Your task to perform on an android device: Open calendar and show me the second week of next month Image 0: 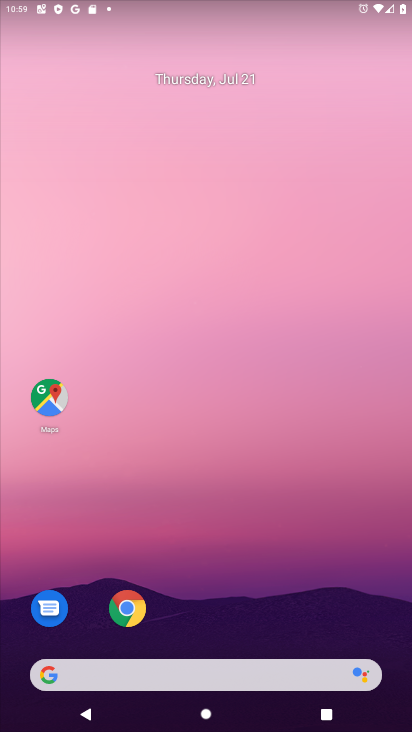
Step 0: drag from (371, 643) to (192, 30)
Your task to perform on an android device: Open calendar and show me the second week of next month Image 1: 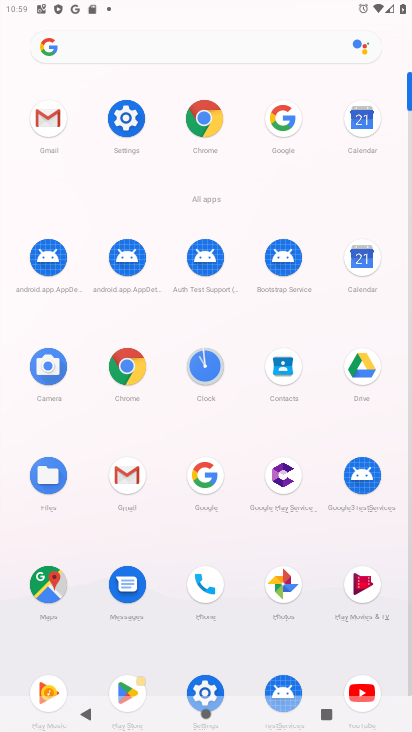
Step 1: click (354, 125)
Your task to perform on an android device: Open calendar and show me the second week of next month Image 2: 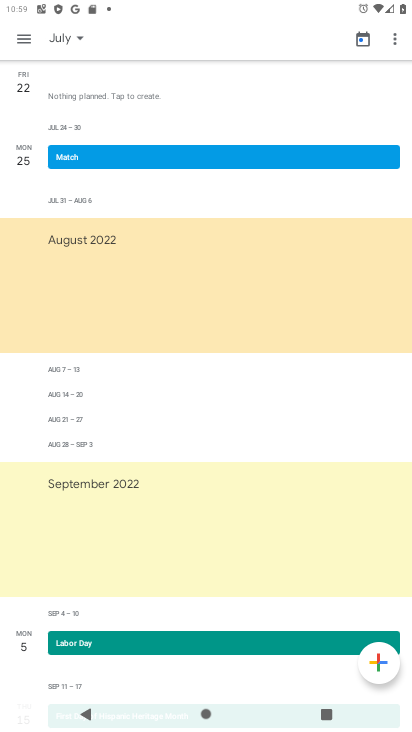
Step 2: click (35, 39)
Your task to perform on an android device: Open calendar and show me the second week of next month Image 3: 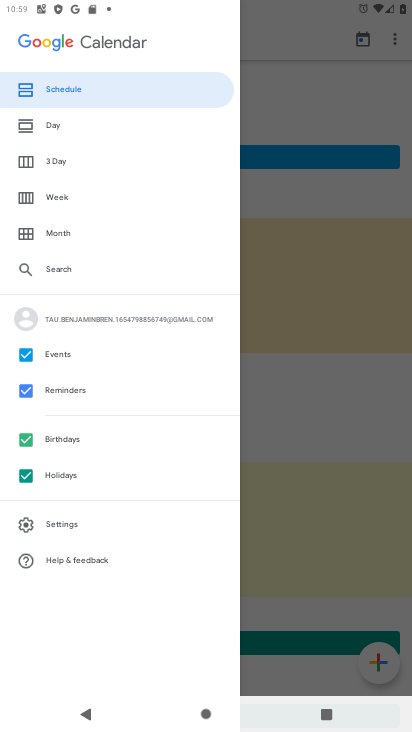
Step 3: click (310, 52)
Your task to perform on an android device: Open calendar and show me the second week of next month Image 4: 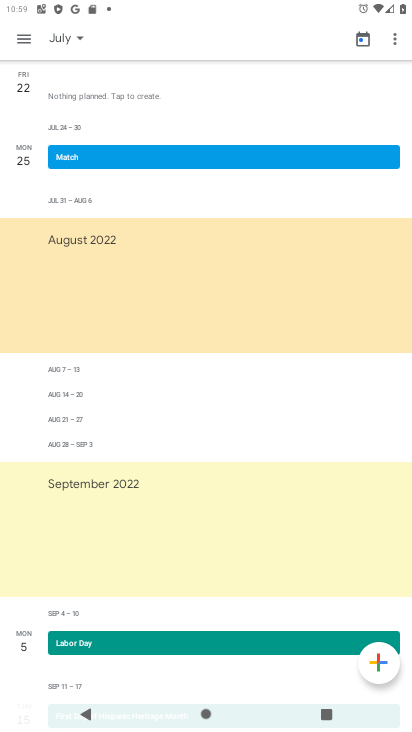
Step 4: click (62, 41)
Your task to perform on an android device: Open calendar and show me the second week of next month Image 5: 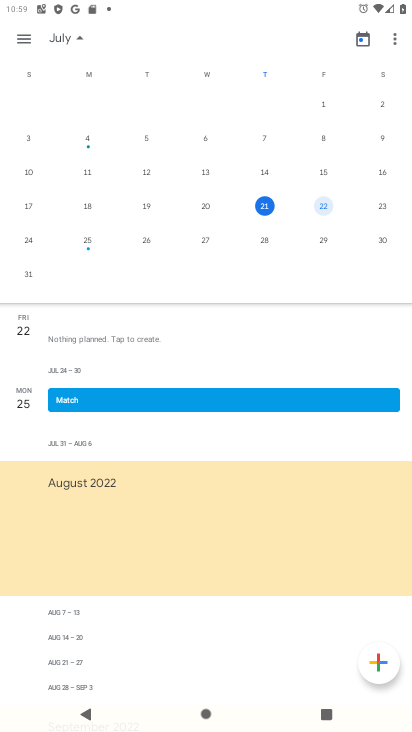
Step 5: drag from (364, 129) to (25, 183)
Your task to perform on an android device: Open calendar and show me the second week of next month Image 6: 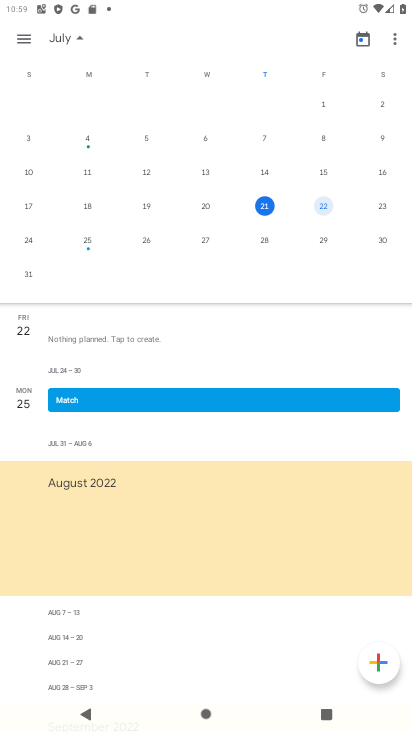
Step 6: drag from (357, 183) to (5, 141)
Your task to perform on an android device: Open calendar and show me the second week of next month Image 7: 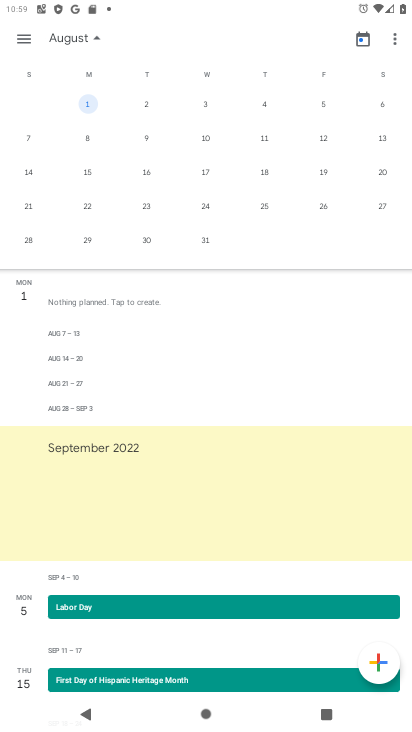
Step 7: click (24, 172)
Your task to perform on an android device: Open calendar and show me the second week of next month Image 8: 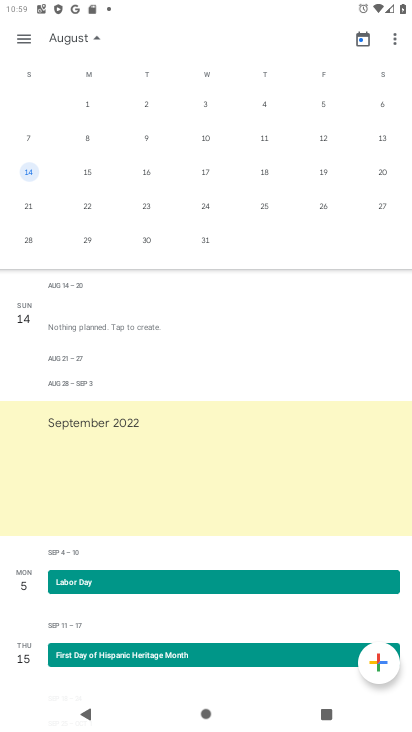
Step 8: task complete